Your task to perform on an android device: Do I have any events tomorrow? Image 0: 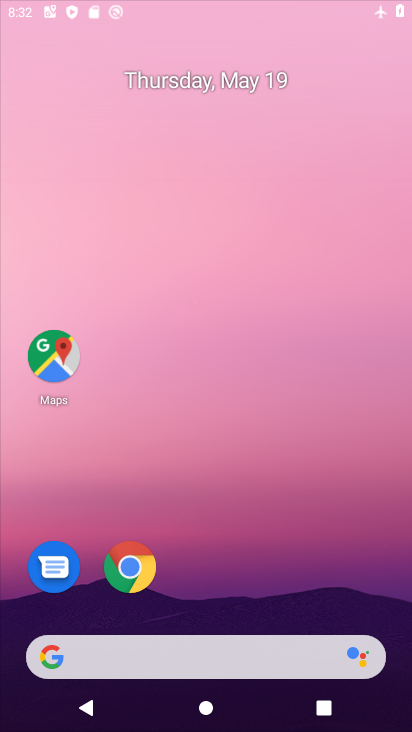
Step 0: click (245, 78)
Your task to perform on an android device: Do I have any events tomorrow? Image 1: 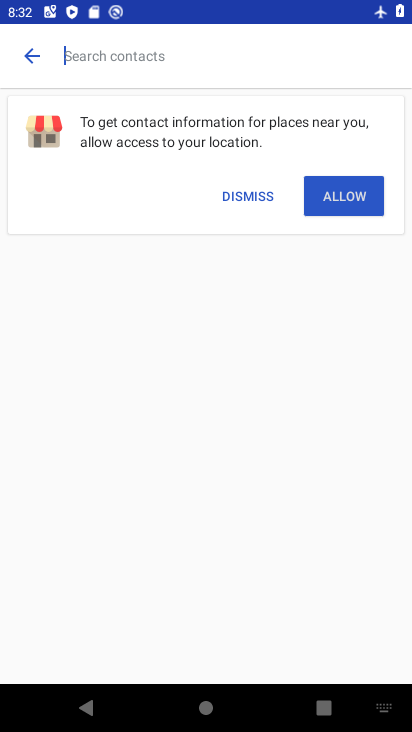
Step 1: press home button
Your task to perform on an android device: Do I have any events tomorrow? Image 2: 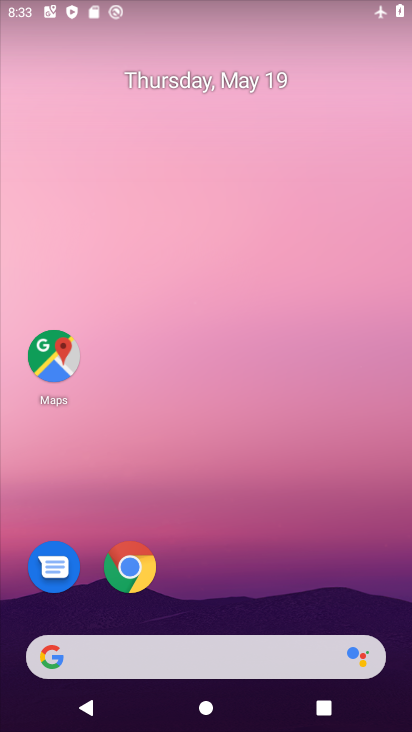
Step 2: drag from (207, 560) to (220, 0)
Your task to perform on an android device: Do I have any events tomorrow? Image 3: 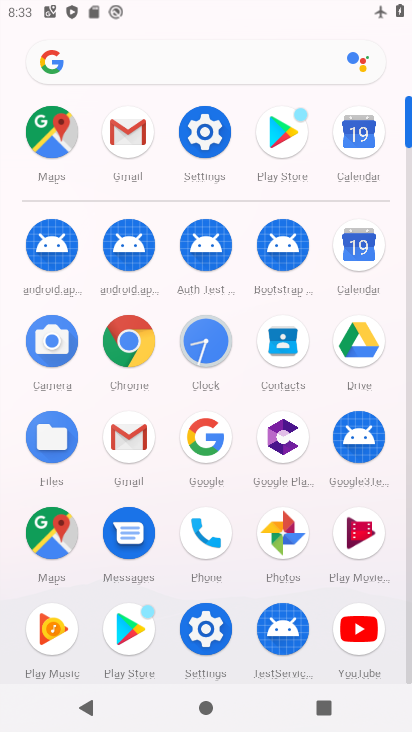
Step 3: click (353, 254)
Your task to perform on an android device: Do I have any events tomorrow? Image 4: 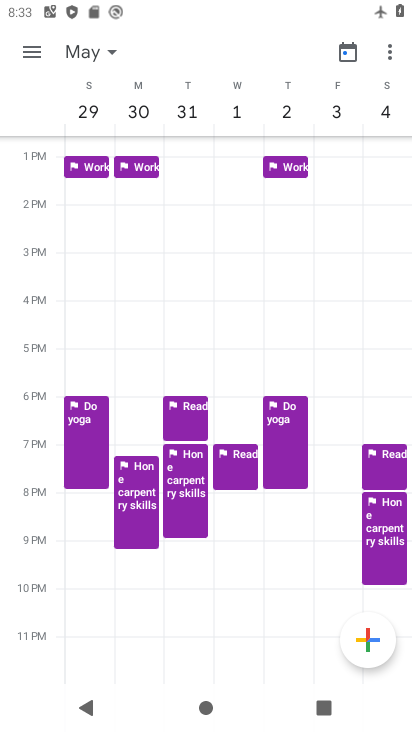
Step 4: drag from (87, 115) to (369, 124)
Your task to perform on an android device: Do I have any events tomorrow? Image 5: 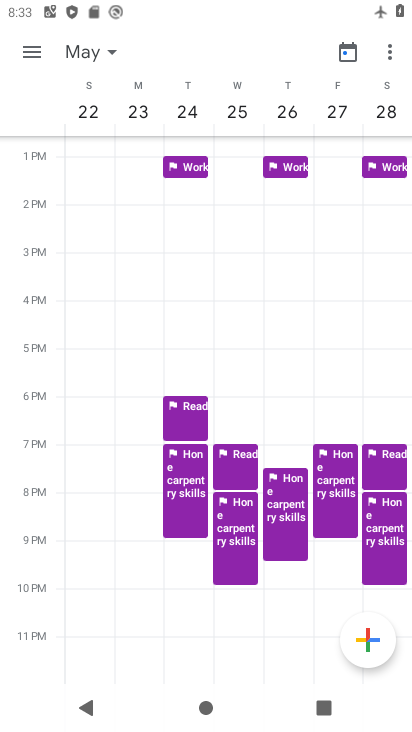
Step 5: drag from (108, 108) to (385, 133)
Your task to perform on an android device: Do I have any events tomorrow? Image 6: 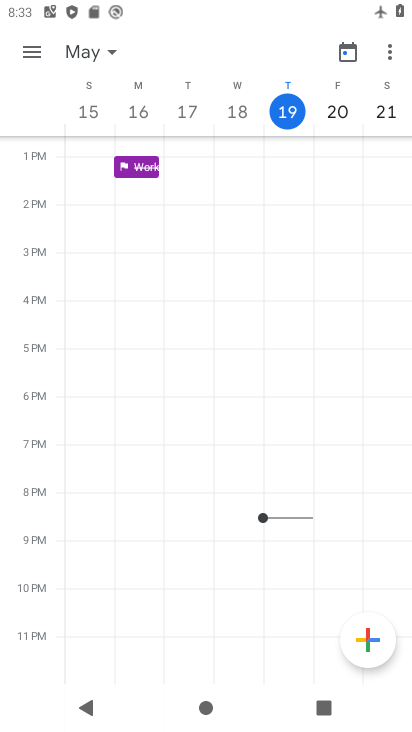
Step 6: click (32, 42)
Your task to perform on an android device: Do I have any events tomorrow? Image 7: 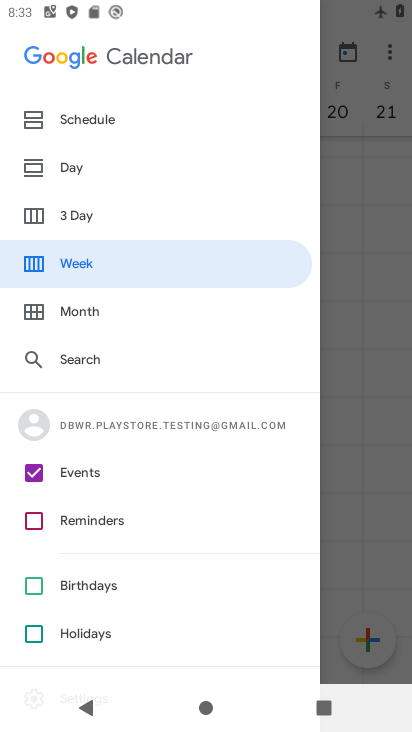
Step 7: click (85, 213)
Your task to perform on an android device: Do I have any events tomorrow? Image 8: 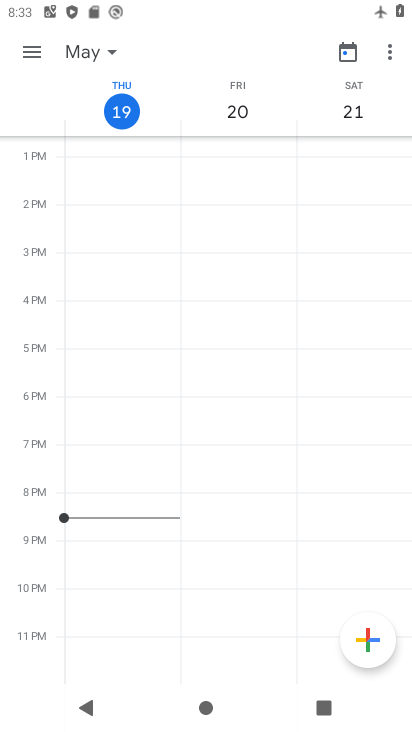
Step 8: task complete